Your task to perform on an android device: Search for seafood restaurants on Google Maps Image 0: 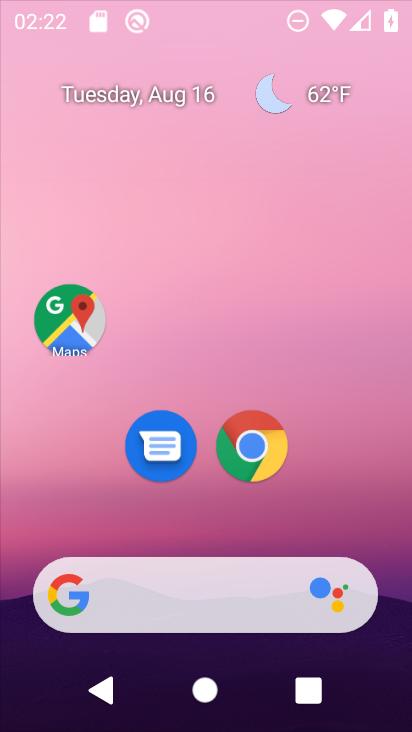
Step 0: press home button
Your task to perform on an android device: Search for seafood restaurants on Google Maps Image 1: 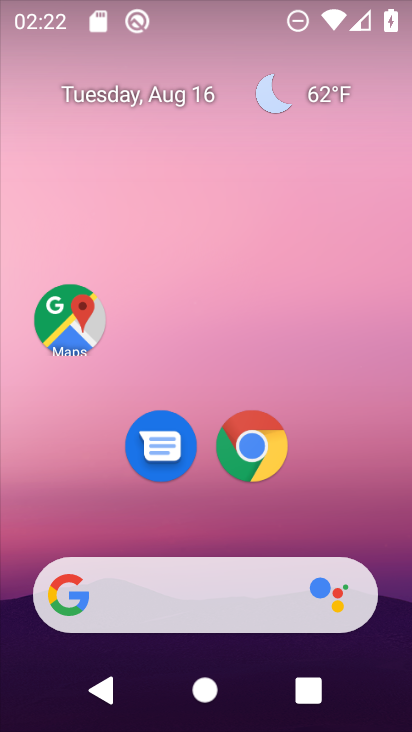
Step 1: click (70, 315)
Your task to perform on an android device: Search for seafood restaurants on Google Maps Image 2: 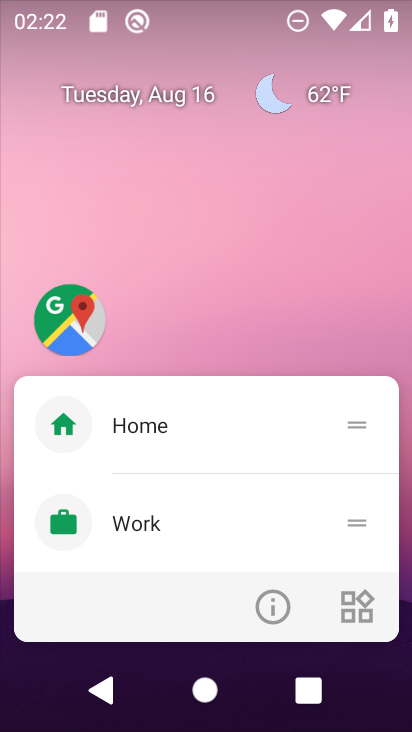
Step 2: click (166, 306)
Your task to perform on an android device: Search for seafood restaurants on Google Maps Image 3: 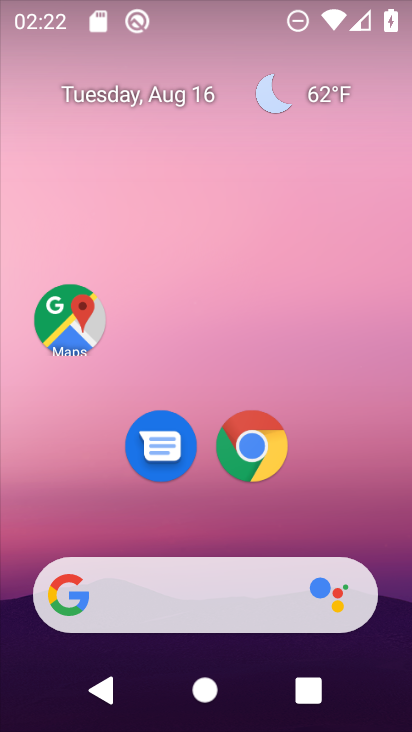
Step 3: click (70, 315)
Your task to perform on an android device: Search for seafood restaurants on Google Maps Image 4: 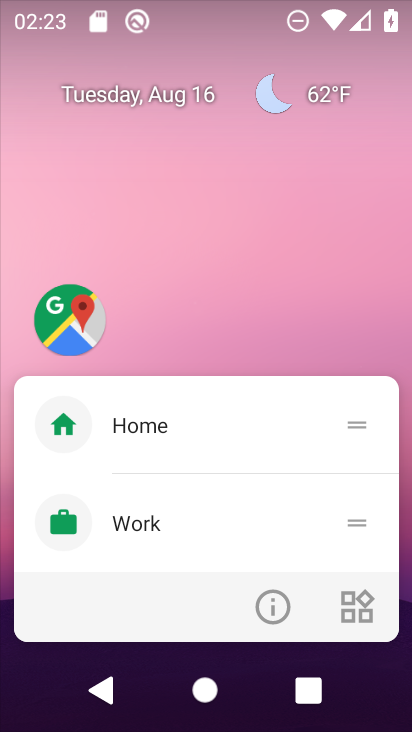
Step 4: click (182, 240)
Your task to perform on an android device: Search for seafood restaurants on Google Maps Image 5: 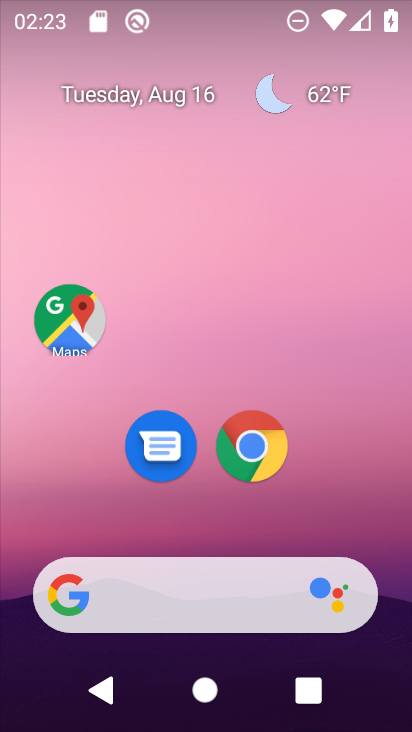
Step 5: click (75, 311)
Your task to perform on an android device: Search for seafood restaurants on Google Maps Image 6: 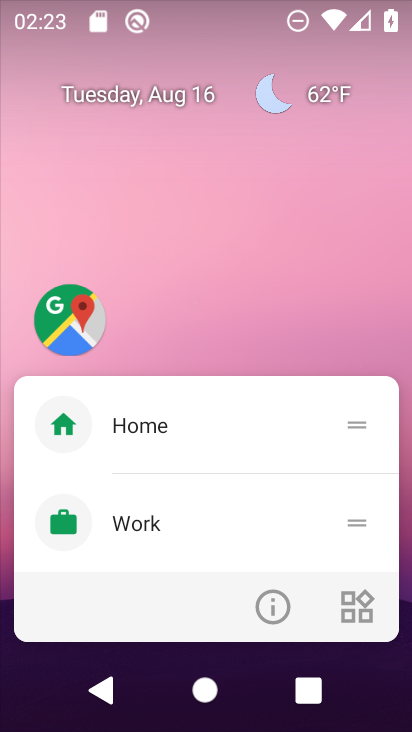
Step 6: click (70, 316)
Your task to perform on an android device: Search for seafood restaurants on Google Maps Image 7: 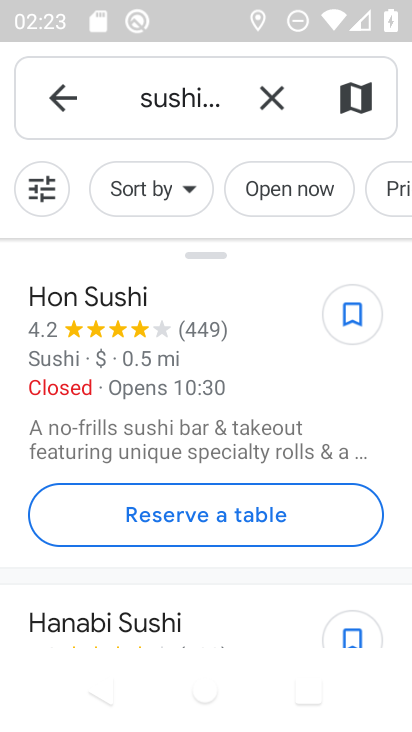
Step 7: click (270, 99)
Your task to perform on an android device: Search for seafood restaurants on Google Maps Image 8: 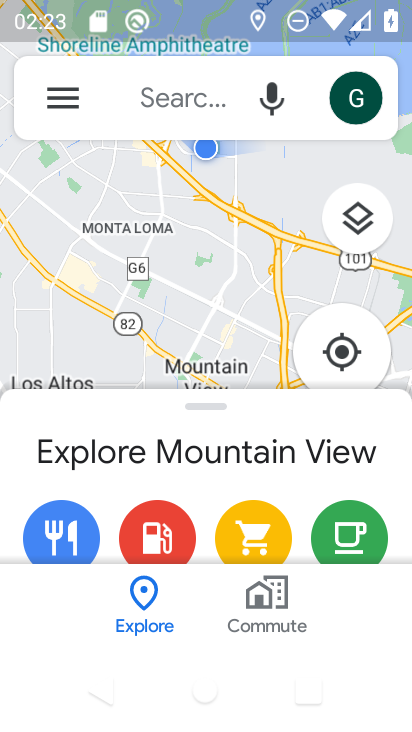
Step 8: click (158, 100)
Your task to perform on an android device: Search for seafood restaurants on Google Maps Image 9: 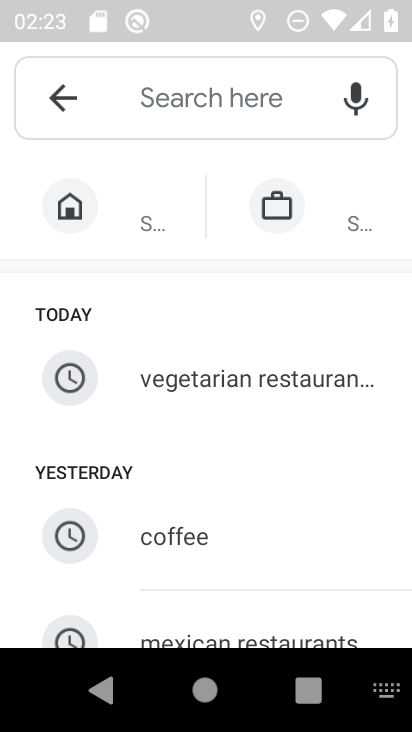
Step 9: type "seafood restaurants"
Your task to perform on an android device: Search for seafood restaurants on Google Maps Image 10: 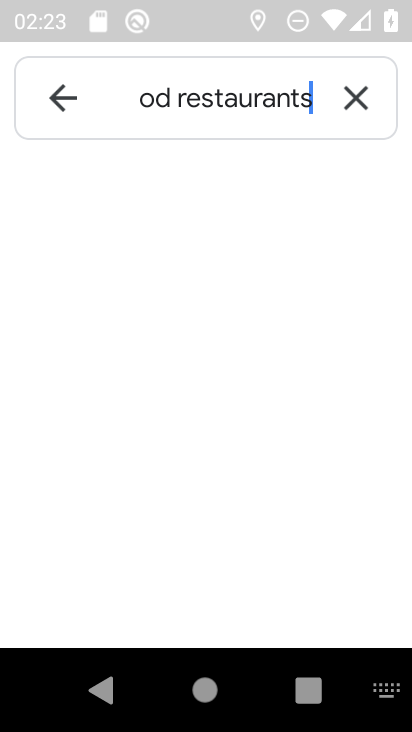
Step 10: type ""
Your task to perform on an android device: Search for seafood restaurants on Google Maps Image 11: 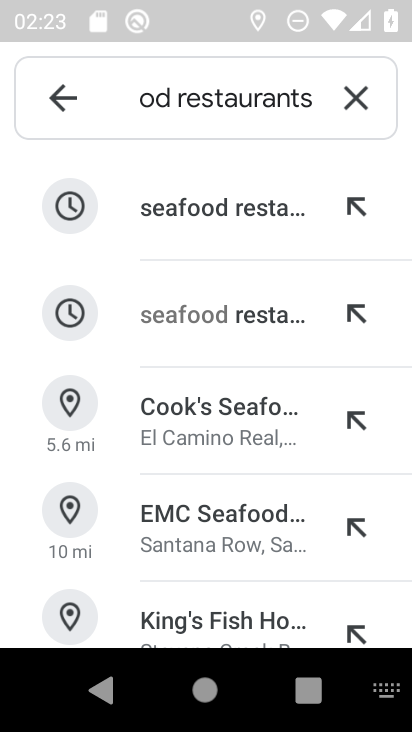
Step 11: click (218, 223)
Your task to perform on an android device: Search for seafood restaurants on Google Maps Image 12: 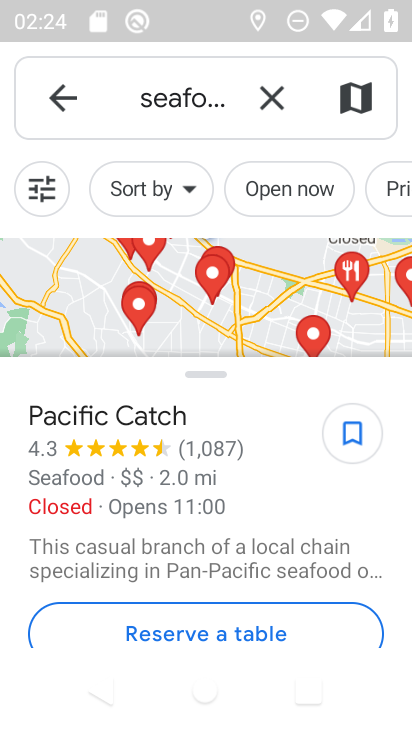
Step 12: task complete